Your task to perform on an android device: check storage Image 0: 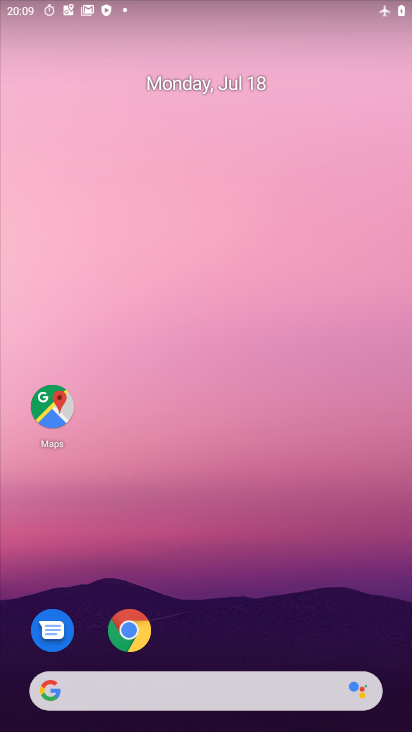
Step 0: drag from (225, 565) to (225, 33)
Your task to perform on an android device: check storage Image 1: 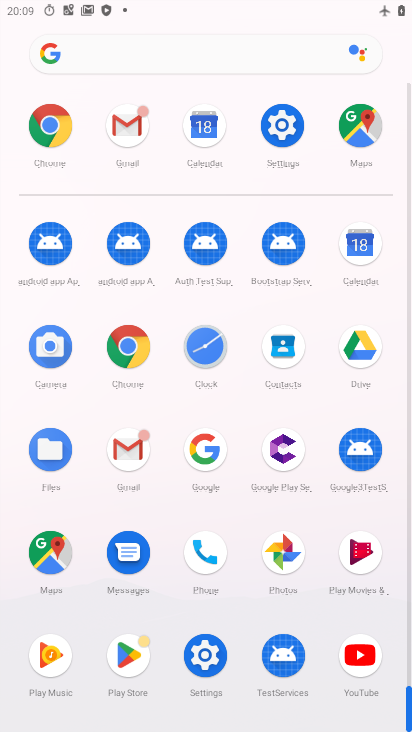
Step 1: click (295, 127)
Your task to perform on an android device: check storage Image 2: 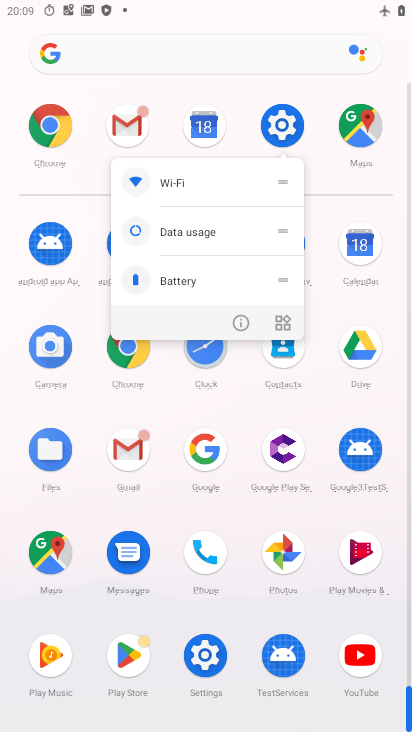
Step 2: click (283, 133)
Your task to perform on an android device: check storage Image 3: 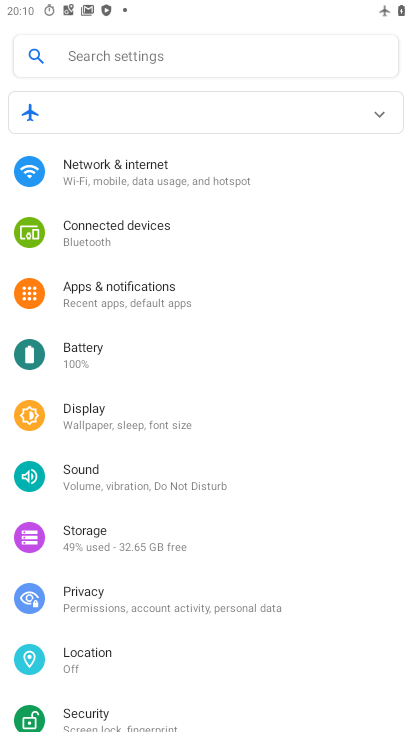
Step 3: click (123, 541)
Your task to perform on an android device: check storage Image 4: 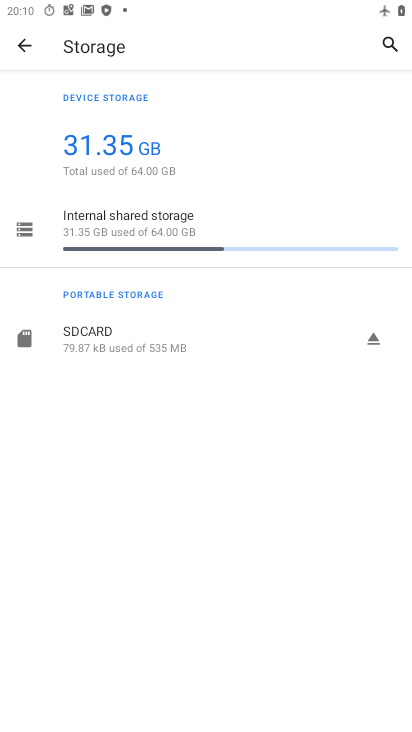
Step 4: click (63, 237)
Your task to perform on an android device: check storage Image 5: 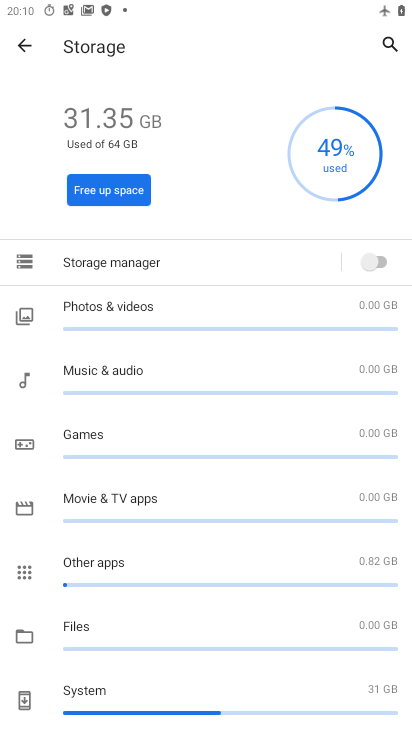
Step 5: task complete